Your task to perform on an android device: Open the calendar and show me this week's events? Image 0: 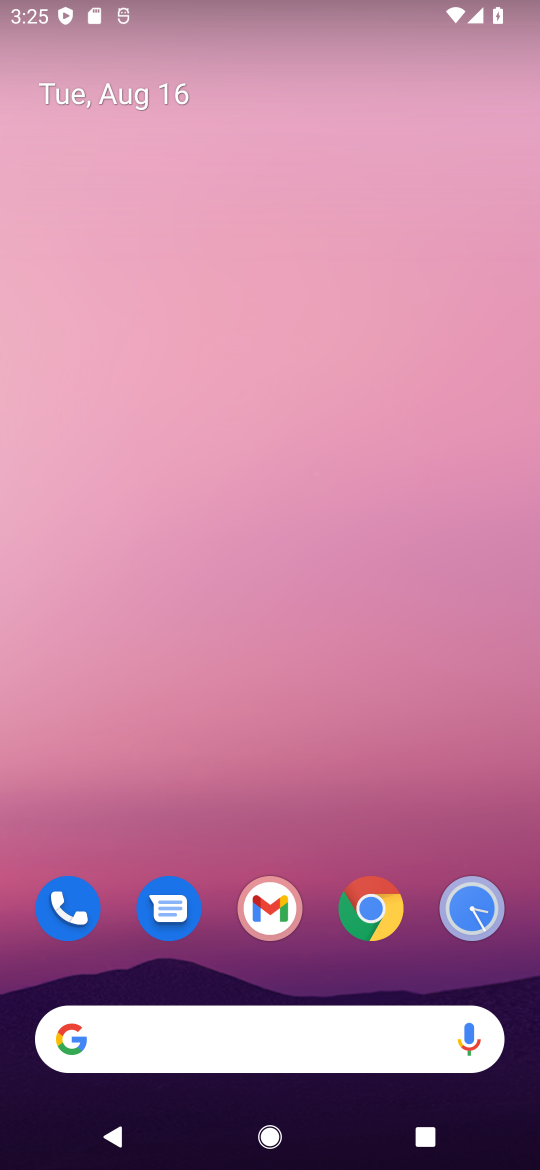
Step 0: press home button
Your task to perform on an android device: Open the calendar and show me this week's events? Image 1: 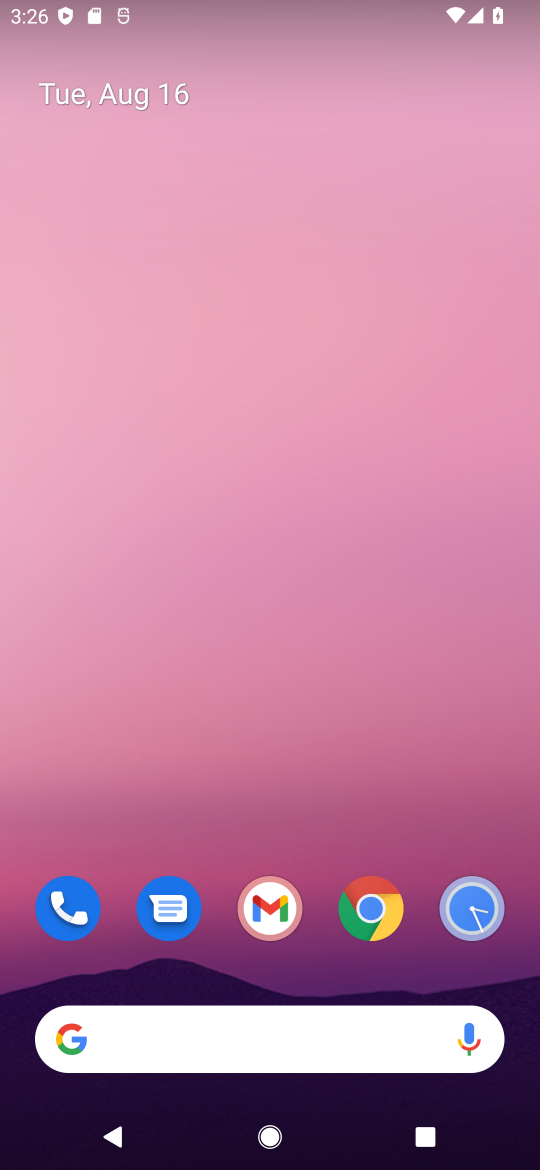
Step 1: drag from (321, 973) to (341, 211)
Your task to perform on an android device: Open the calendar and show me this week's events? Image 2: 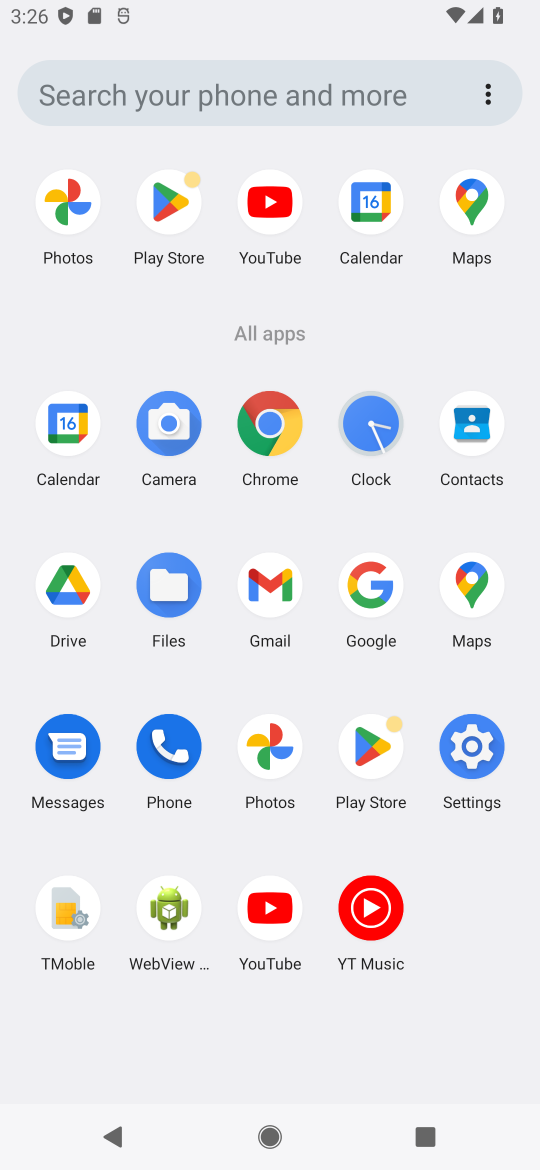
Step 2: click (70, 427)
Your task to perform on an android device: Open the calendar and show me this week's events? Image 3: 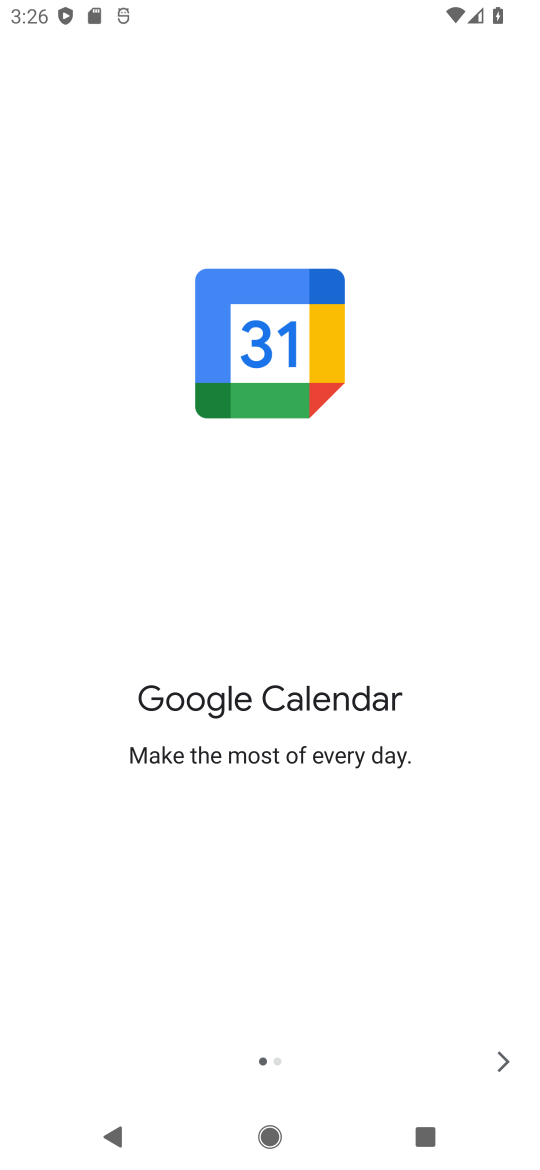
Step 3: click (498, 1054)
Your task to perform on an android device: Open the calendar and show me this week's events? Image 4: 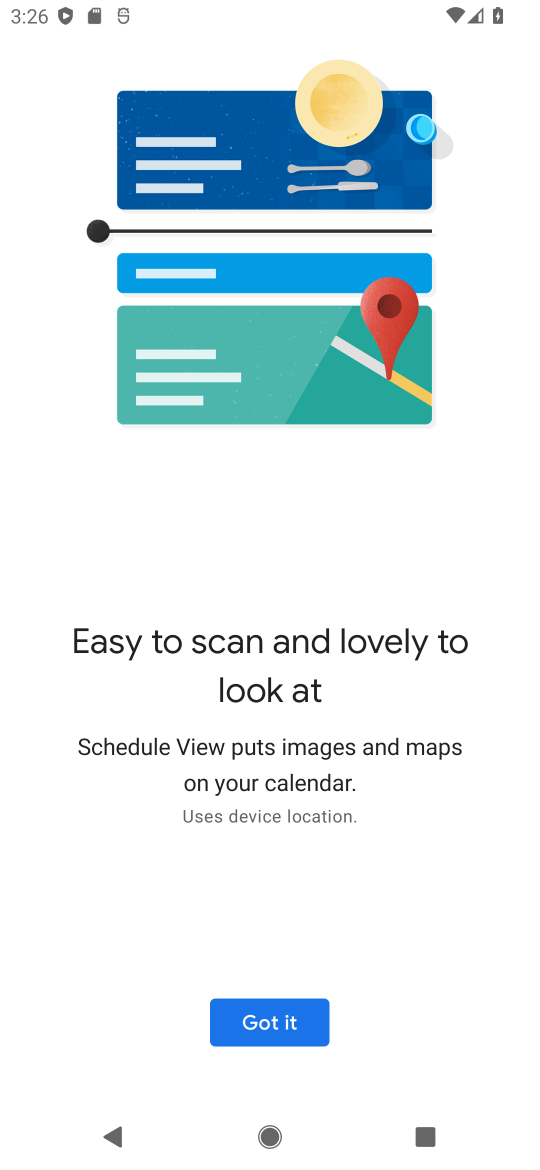
Step 4: click (269, 1018)
Your task to perform on an android device: Open the calendar and show me this week's events? Image 5: 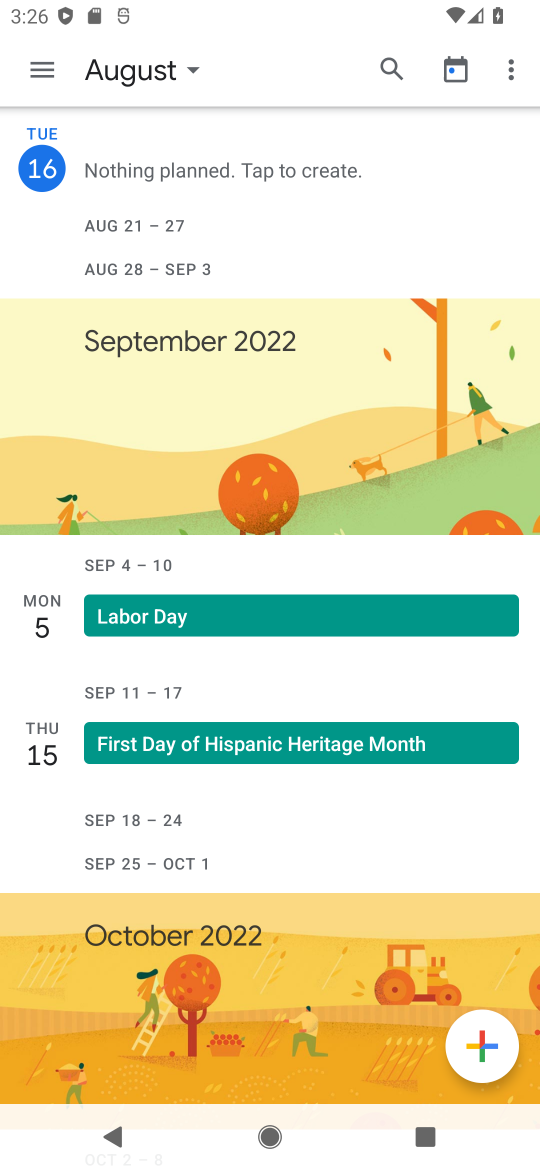
Step 5: click (43, 53)
Your task to perform on an android device: Open the calendar and show me this week's events? Image 6: 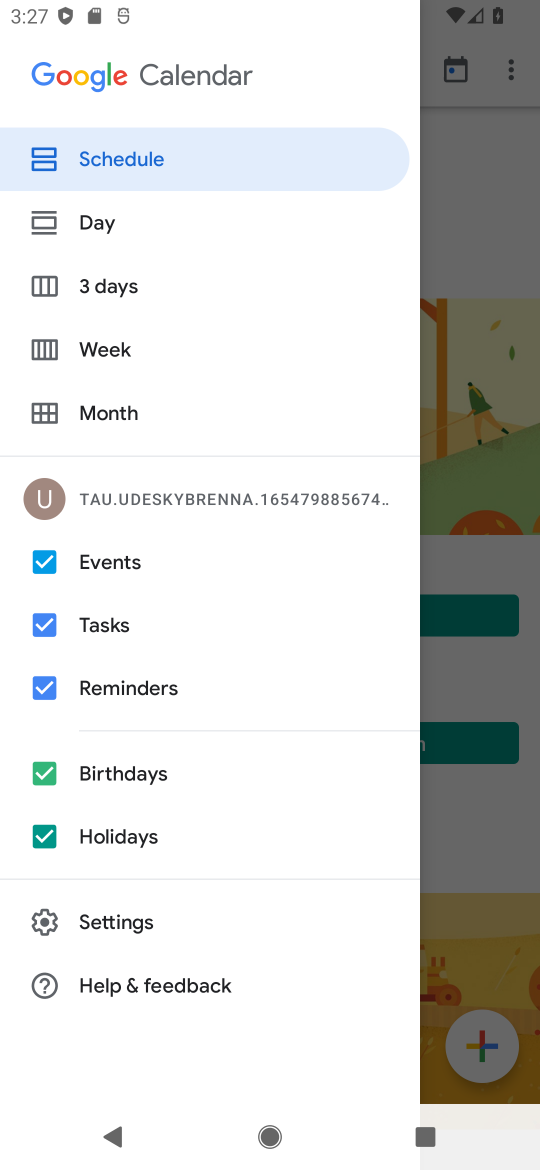
Step 6: click (36, 833)
Your task to perform on an android device: Open the calendar and show me this week's events? Image 7: 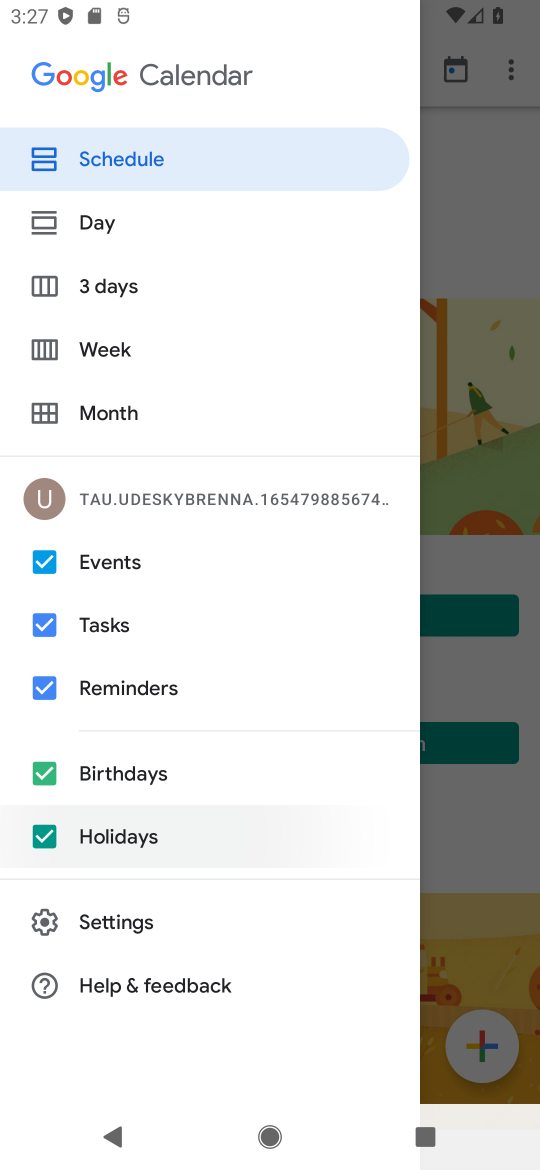
Step 7: click (44, 772)
Your task to perform on an android device: Open the calendar and show me this week's events? Image 8: 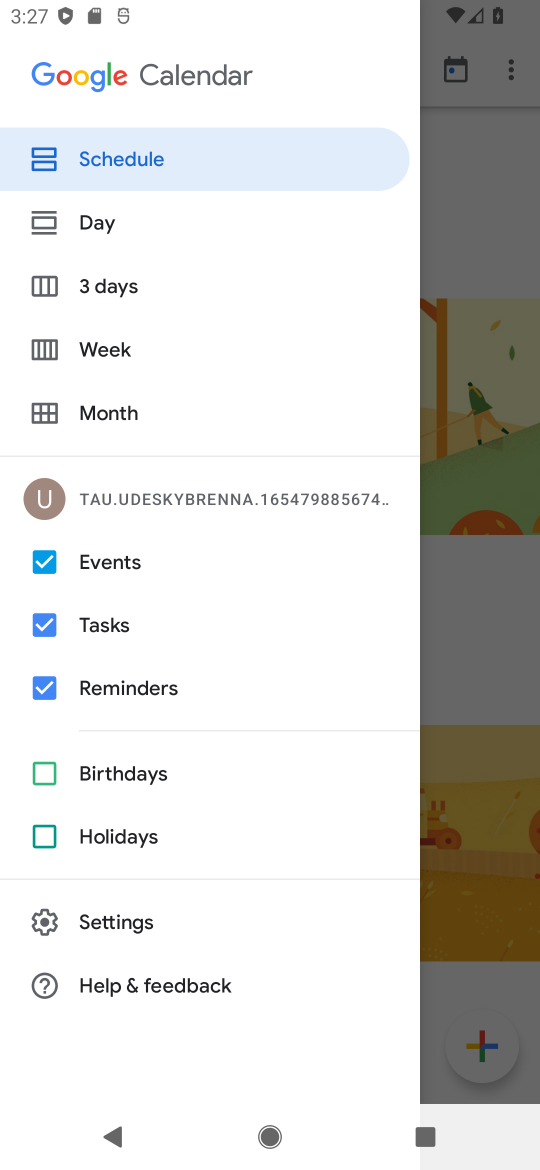
Step 8: click (48, 681)
Your task to perform on an android device: Open the calendar and show me this week's events? Image 9: 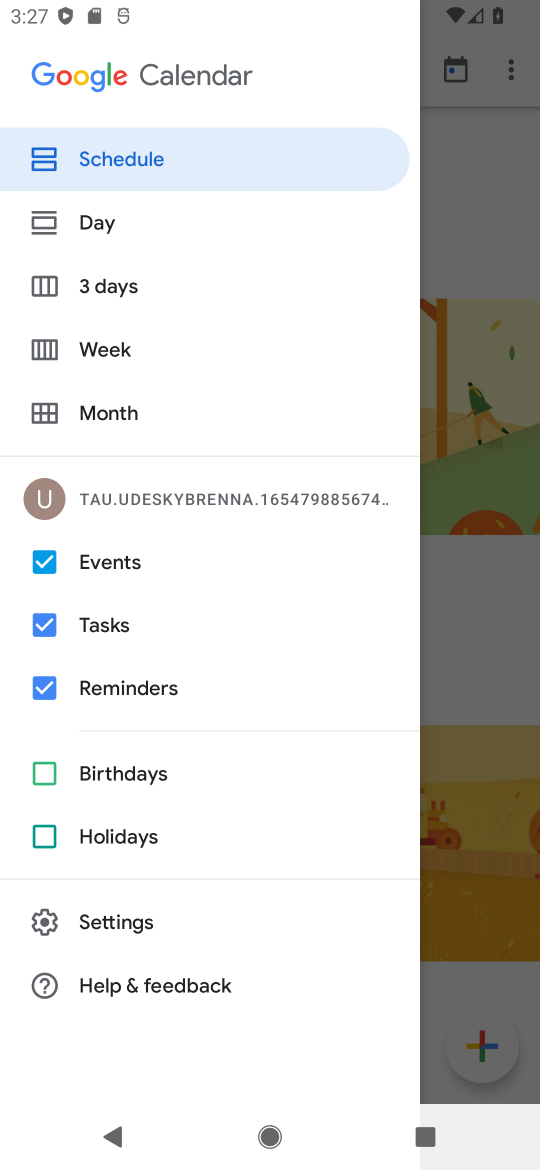
Step 9: click (45, 618)
Your task to perform on an android device: Open the calendar and show me this week's events? Image 10: 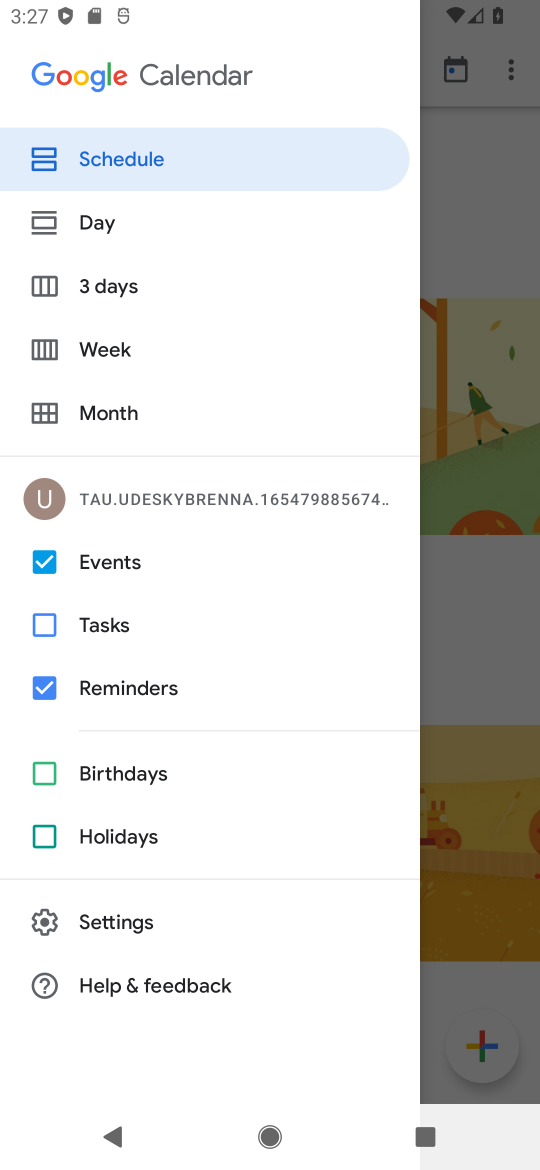
Step 10: click (48, 689)
Your task to perform on an android device: Open the calendar and show me this week's events? Image 11: 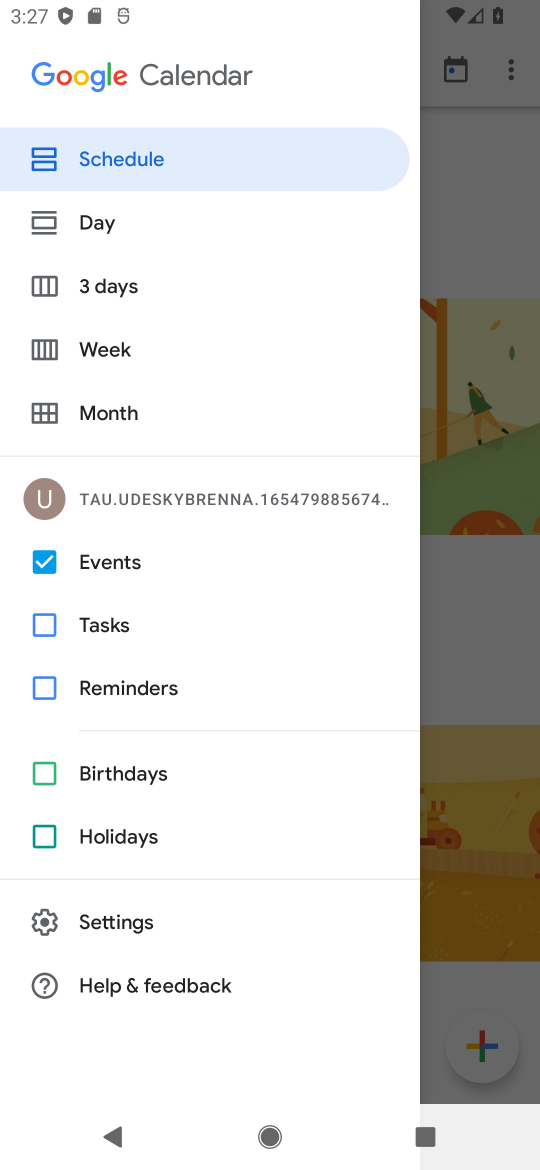
Step 11: click (81, 338)
Your task to perform on an android device: Open the calendar and show me this week's events? Image 12: 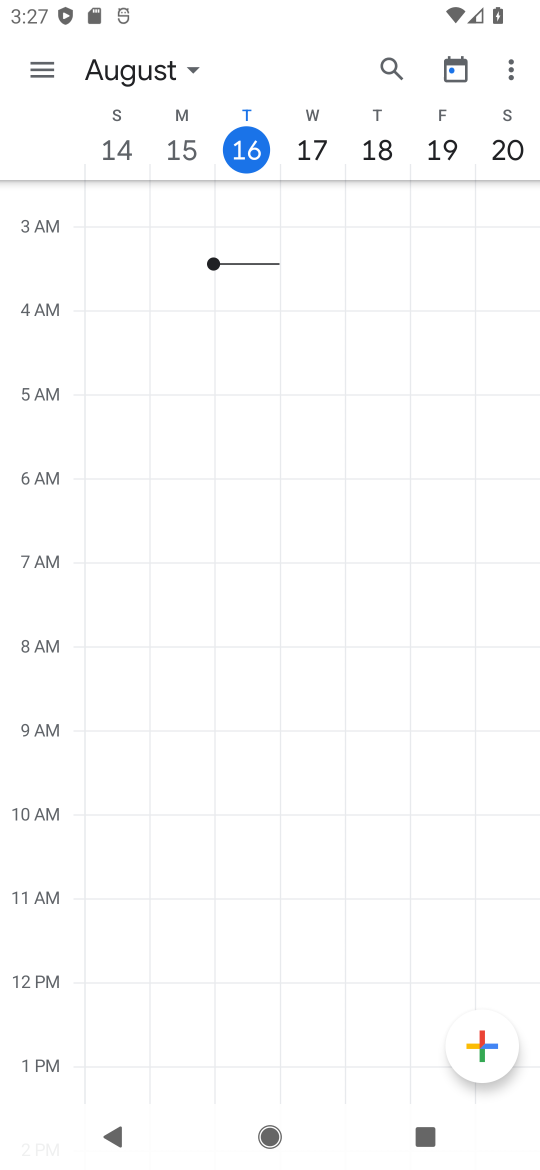
Step 12: click (244, 150)
Your task to perform on an android device: Open the calendar and show me this week's events? Image 13: 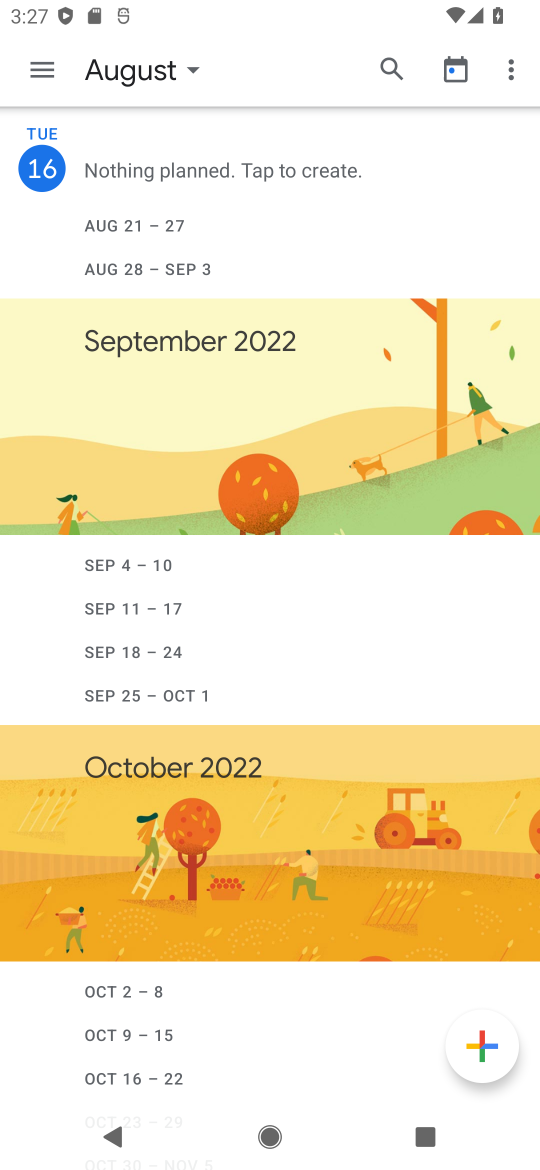
Step 13: task complete